Your task to perform on an android device: change the clock display to digital Image 0: 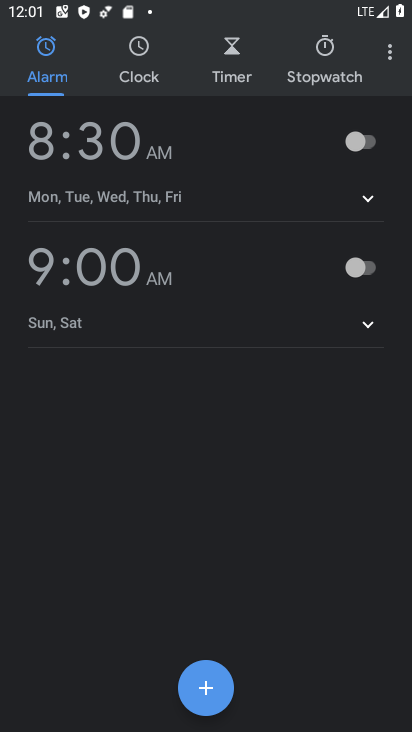
Step 0: press home button
Your task to perform on an android device: change the clock display to digital Image 1: 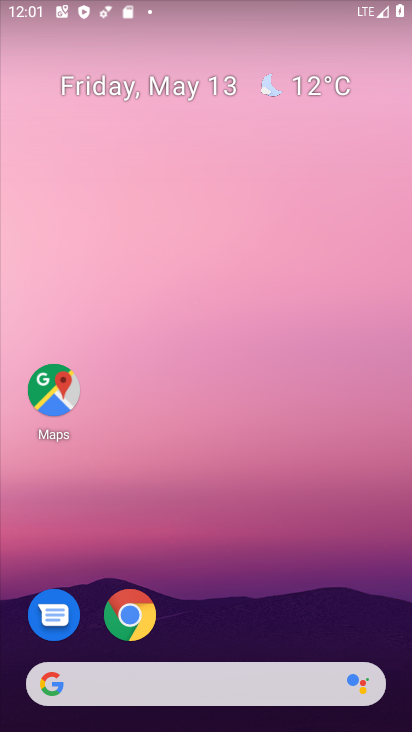
Step 1: drag from (220, 621) to (242, 147)
Your task to perform on an android device: change the clock display to digital Image 2: 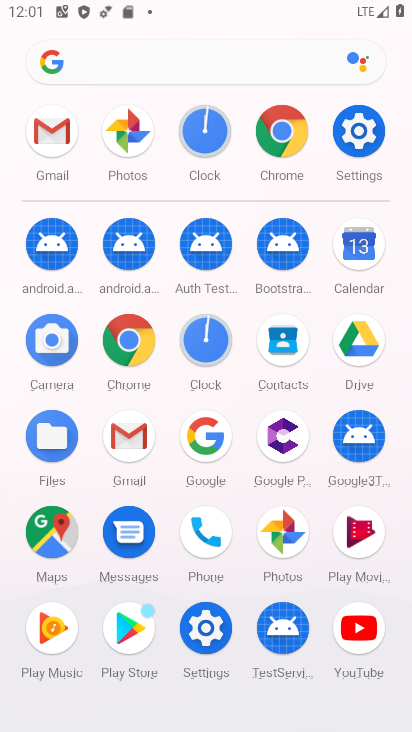
Step 2: click (203, 127)
Your task to perform on an android device: change the clock display to digital Image 3: 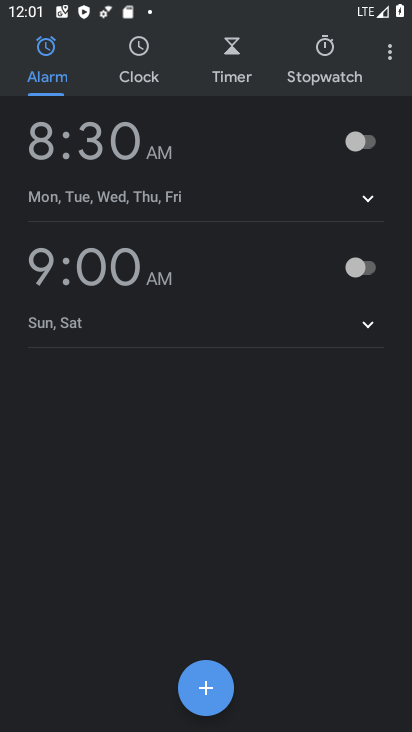
Step 3: click (394, 56)
Your task to perform on an android device: change the clock display to digital Image 4: 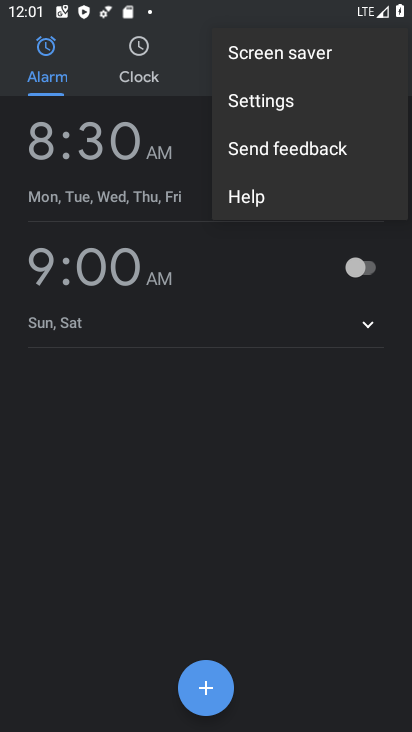
Step 4: click (338, 97)
Your task to perform on an android device: change the clock display to digital Image 5: 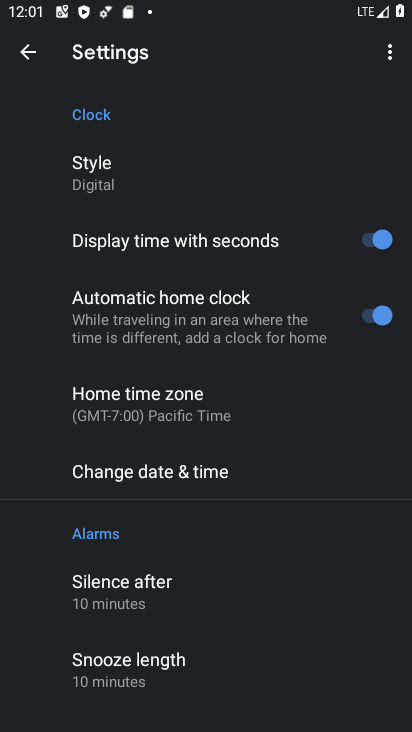
Step 5: click (151, 174)
Your task to perform on an android device: change the clock display to digital Image 6: 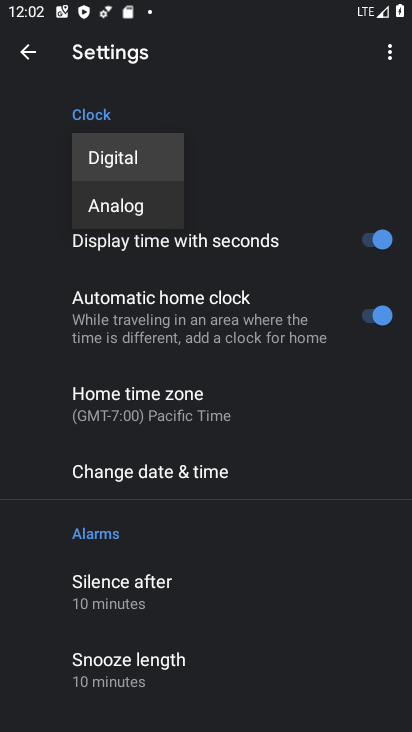
Step 6: task complete